Your task to perform on an android device: open app "Gmail" (install if not already installed) Image 0: 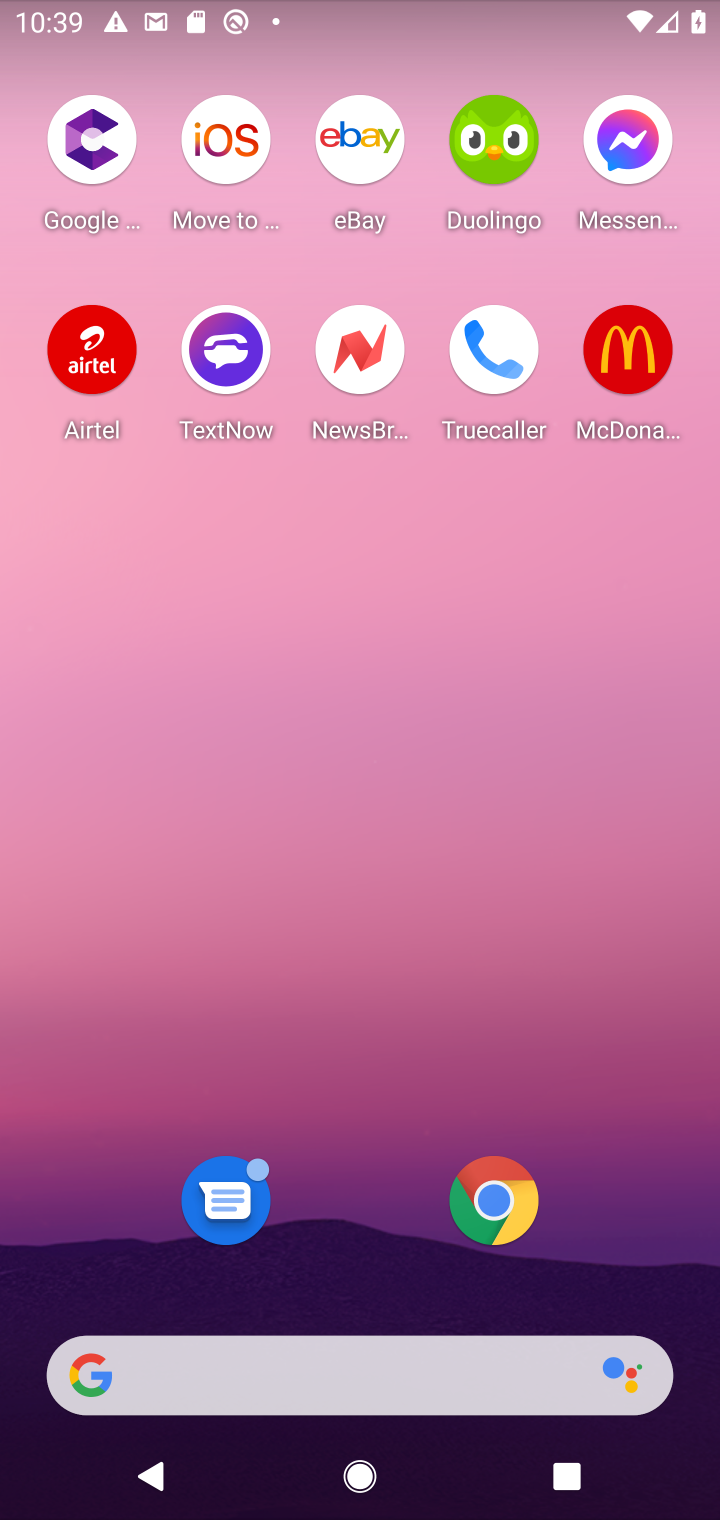
Step 0: press home button
Your task to perform on an android device: open app "Gmail" (install if not already installed) Image 1: 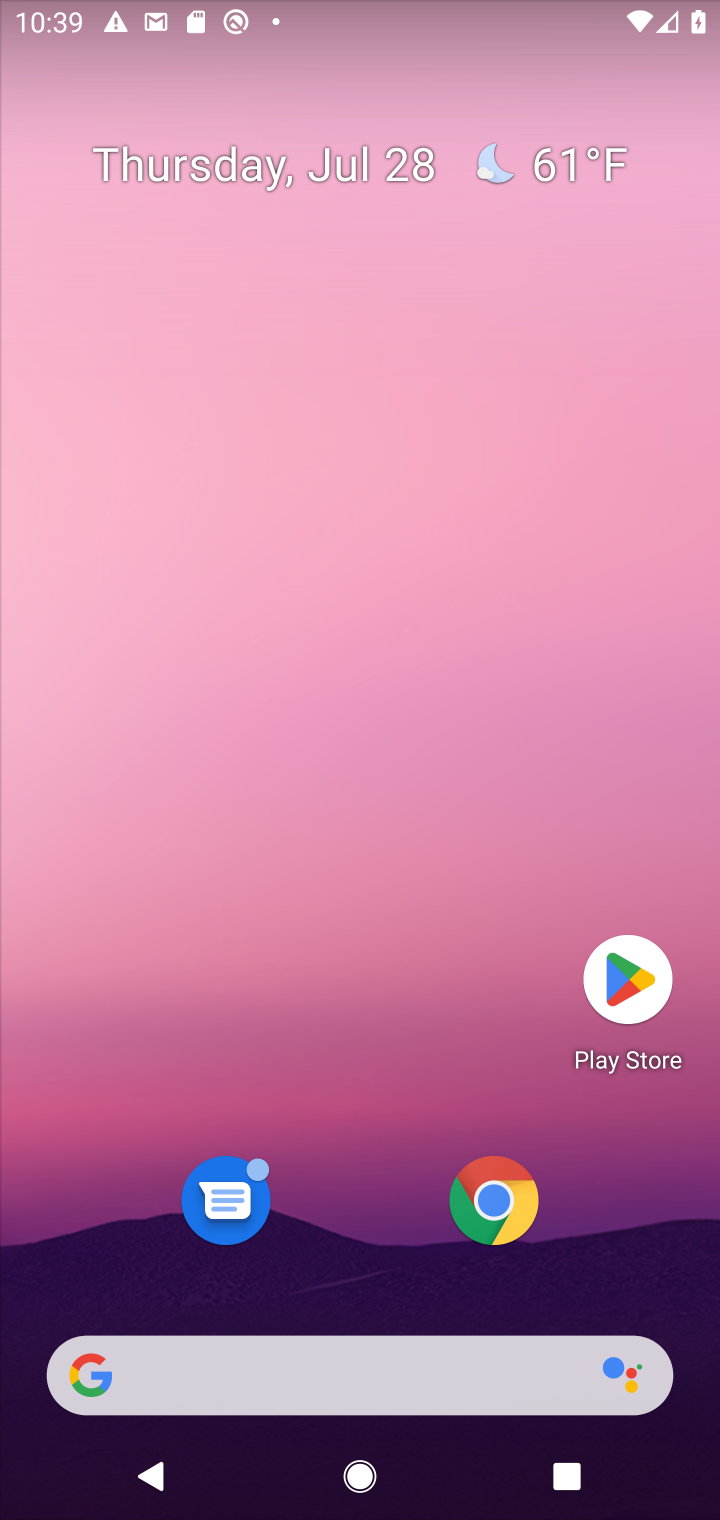
Step 1: drag from (353, 1306) to (485, 351)
Your task to perform on an android device: open app "Gmail" (install if not already installed) Image 2: 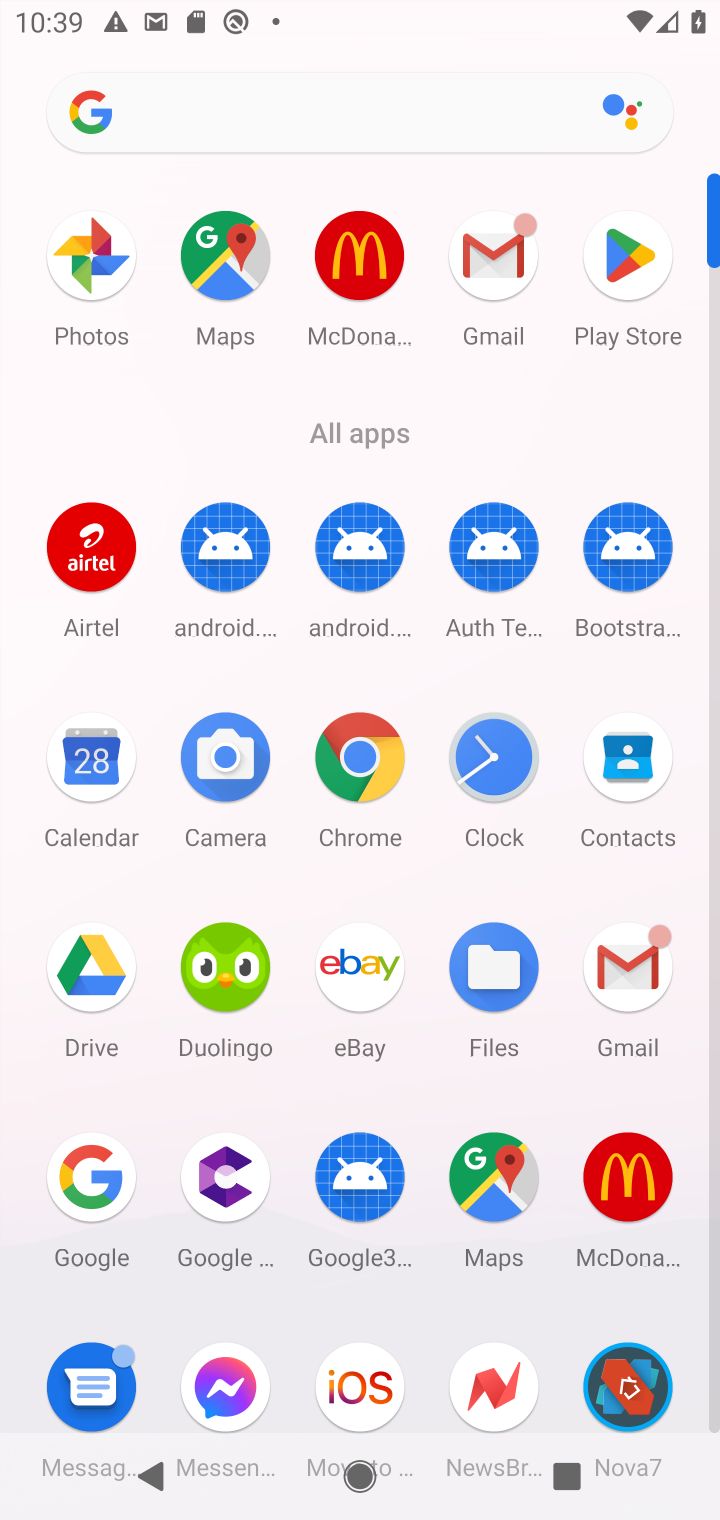
Step 2: click (495, 265)
Your task to perform on an android device: open app "Gmail" (install if not already installed) Image 3: 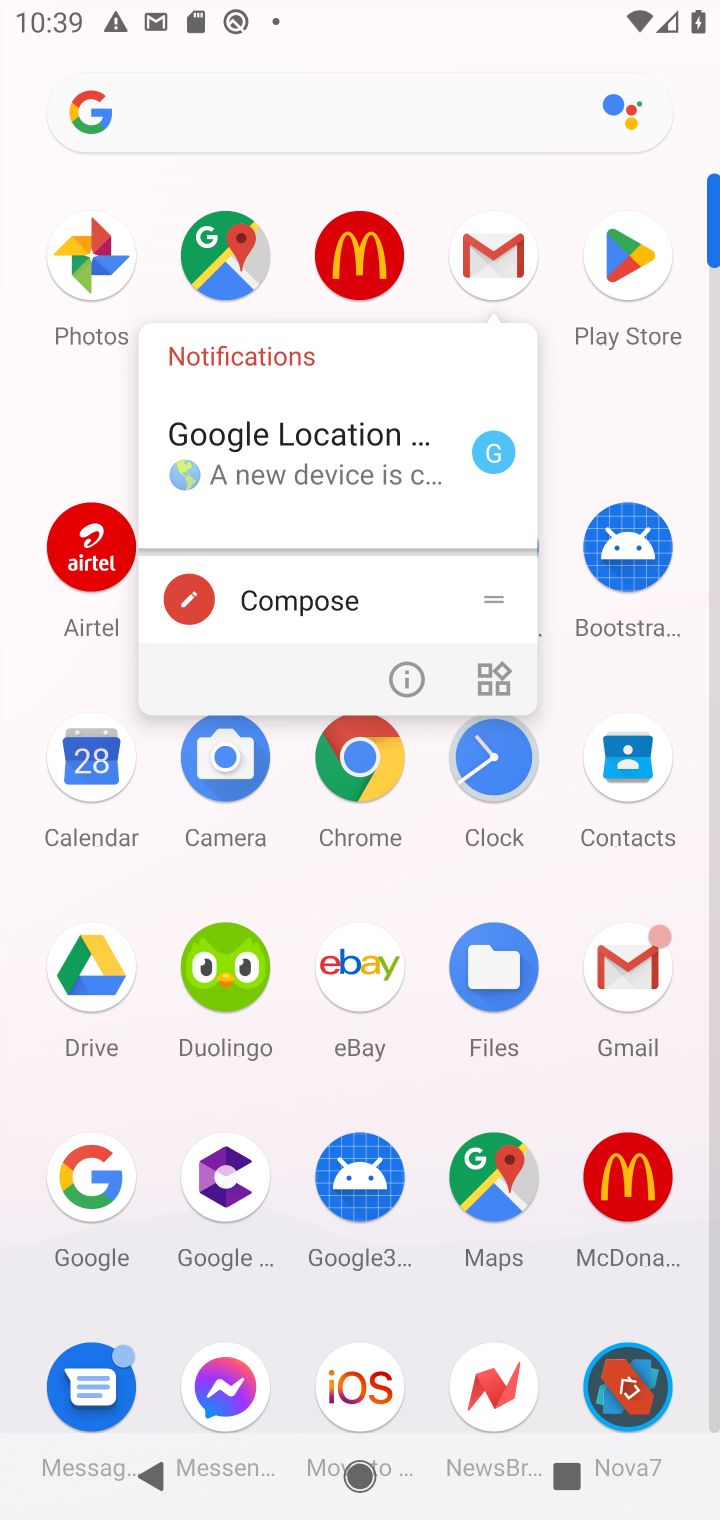
Step 3: click (495, 265)
Your task to perform on an android device: open app "Gmail" (install if not already installed) Image 4: 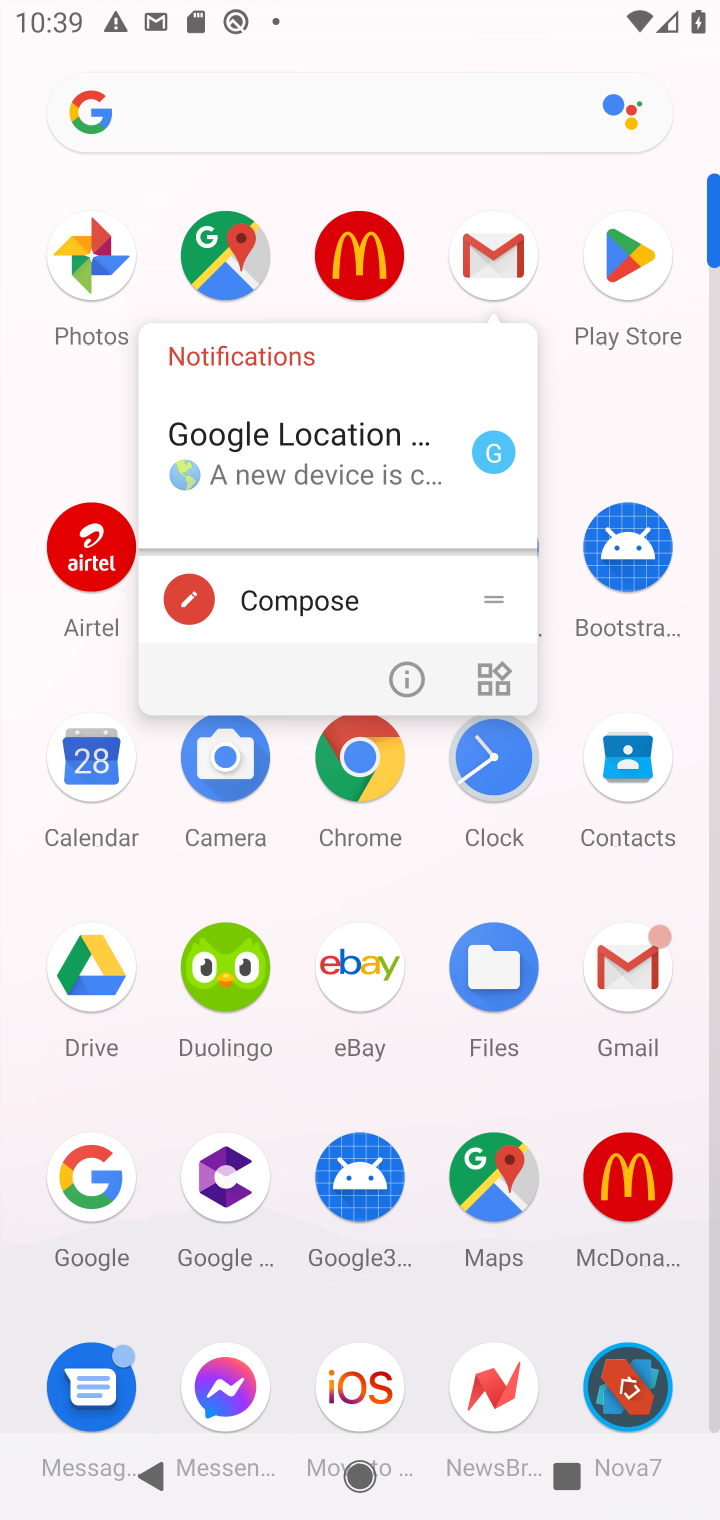
Step 4: click (495, 263)
Your task to perform on an android device: open app "Gmail" (install if not already installed) Image 5: 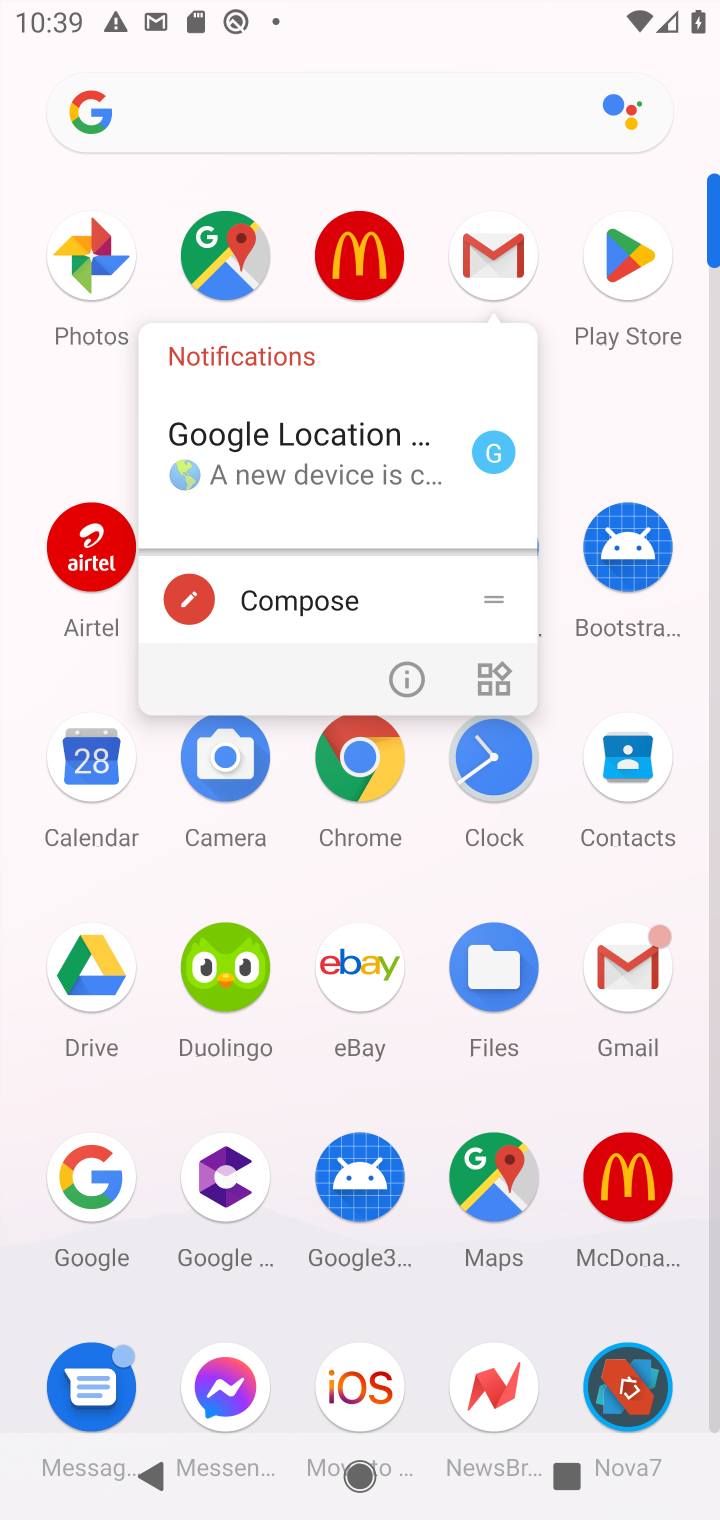
Step 5: click (492, 263)
Your task to perform on an android device: open app "Gmail" (install if not already installed) Image 6: 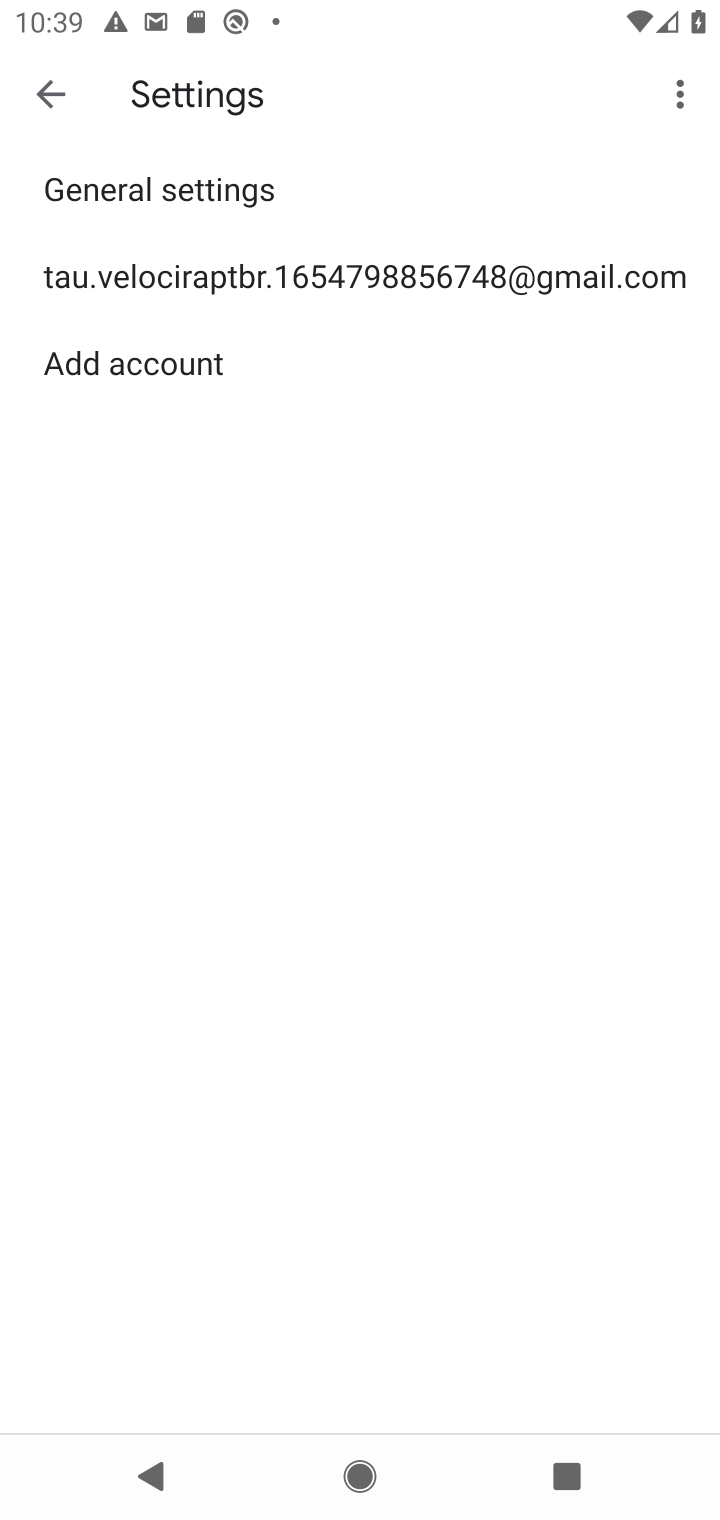
Step 6: click (45, 97)
Your task to perform on an android device: open app "Gmail" (install if not already installed) Image 7: 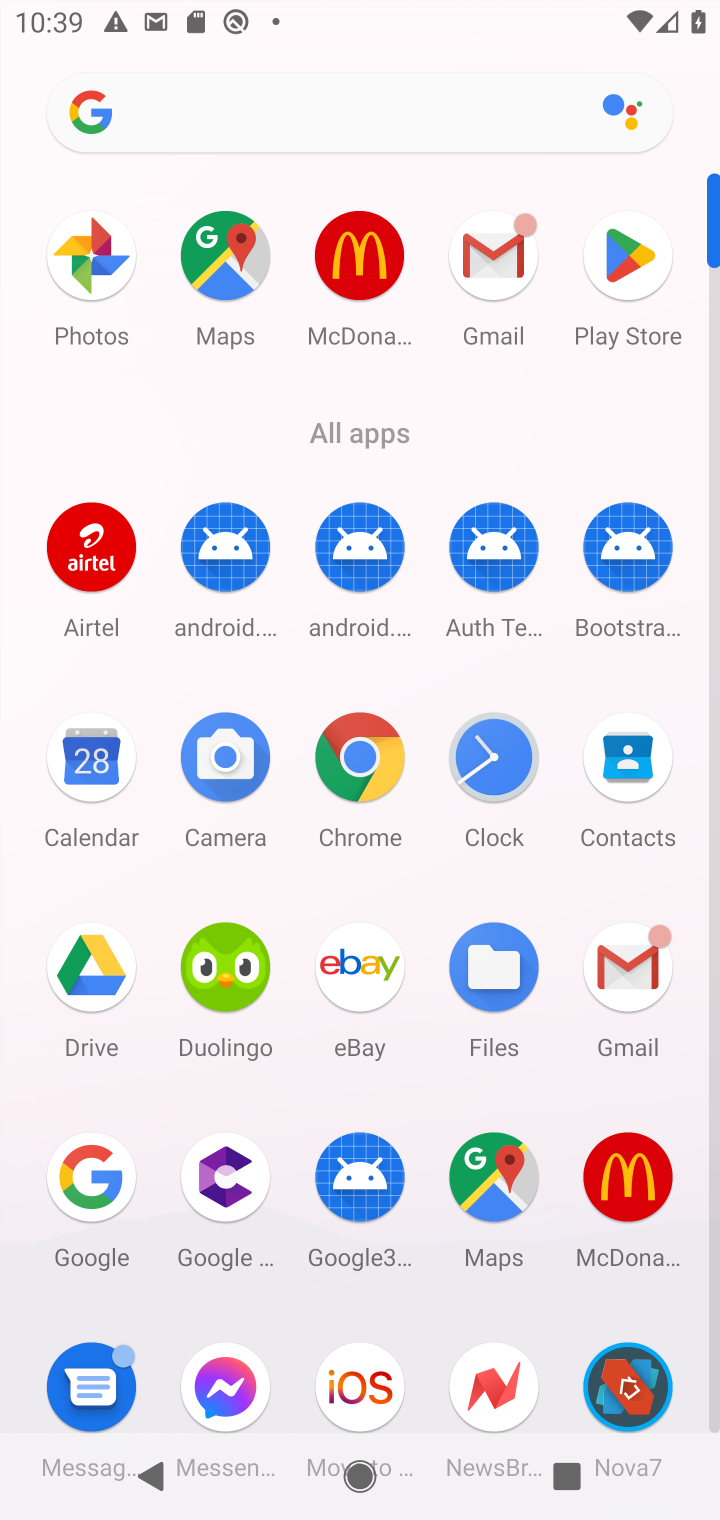
Step 7: click (498, 250)
Your task to perform on an android device: open app "Gmail" (install if not already installed) Image 8: 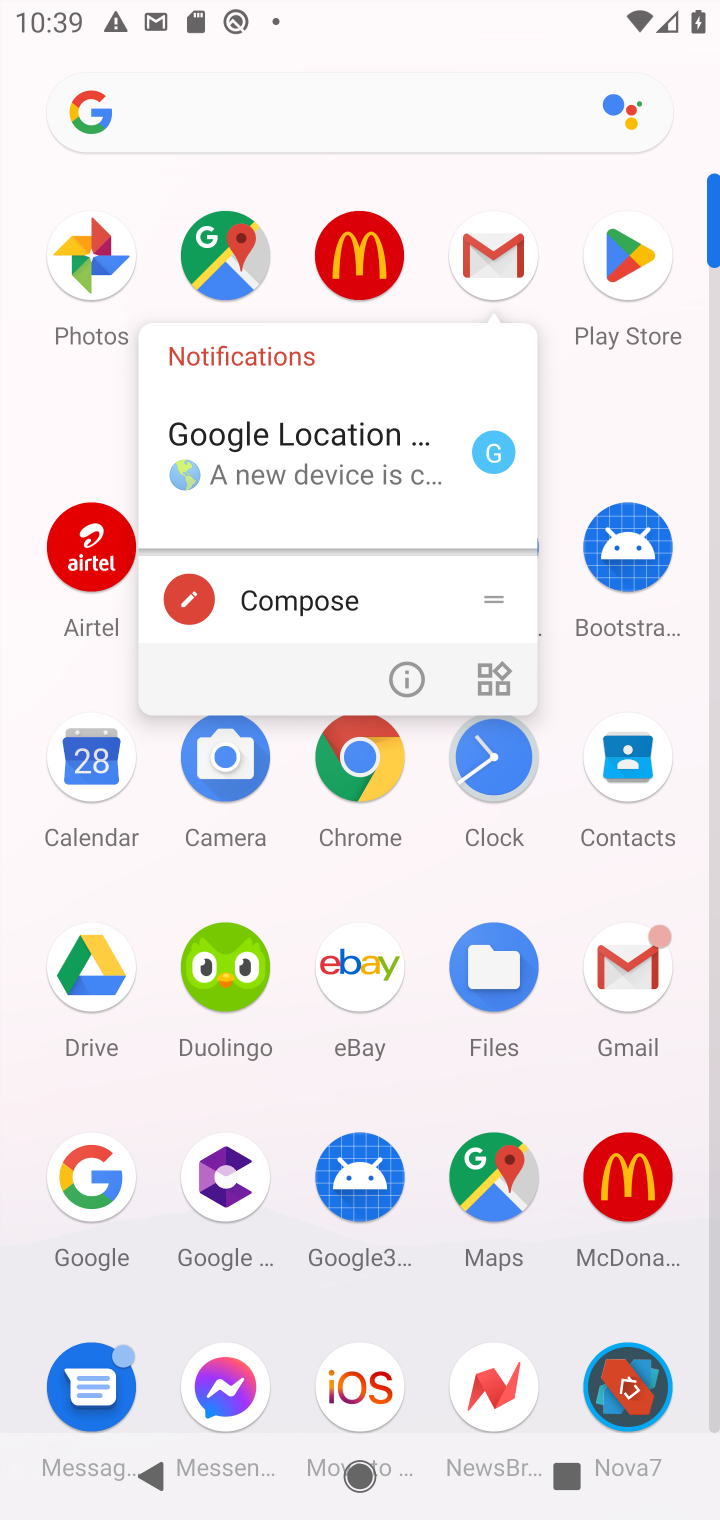
Step 8: click (498, 263)
Your task to perform on an android device: open app "Gmail" (install if not already installed) Image 9: 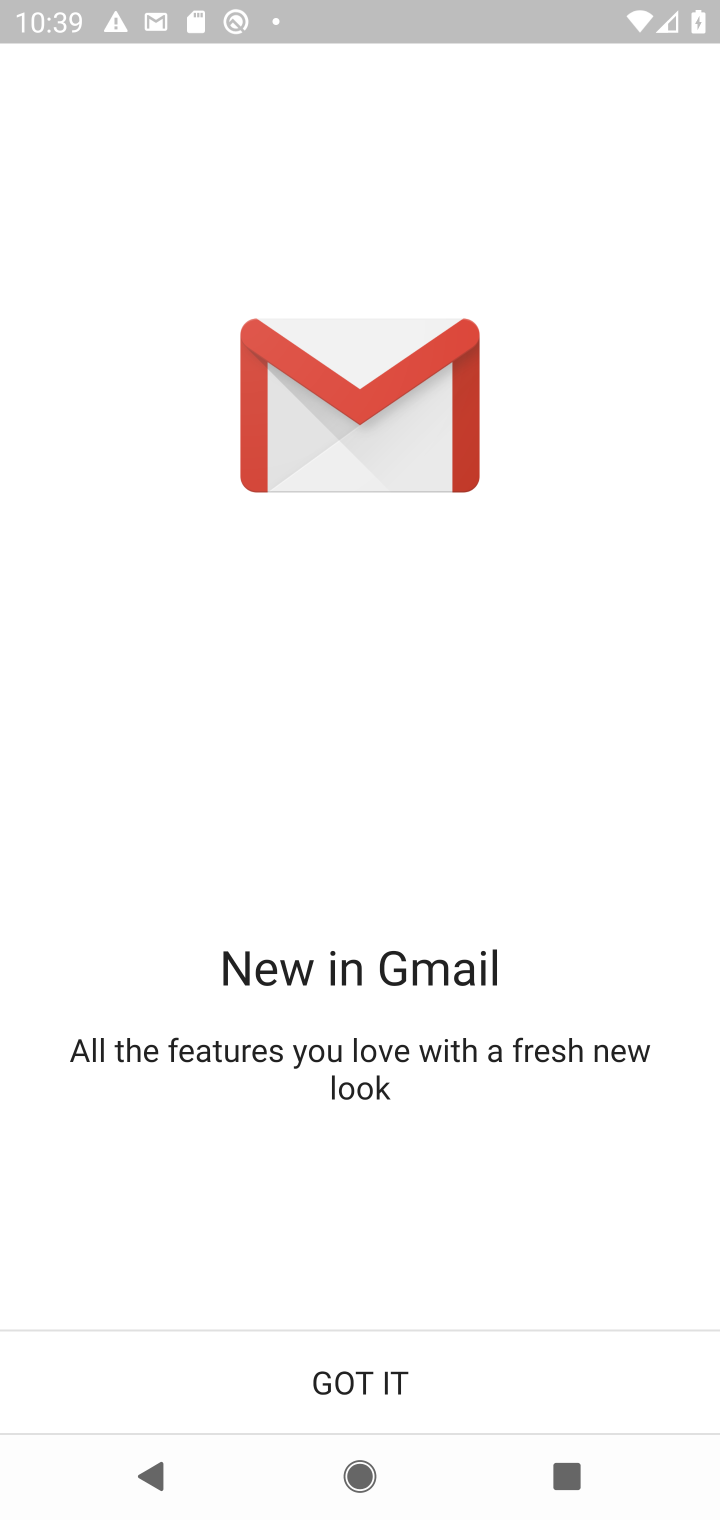
Step 9: click (350, 1378)
Your task to perform on an android device: open app "Gmail" (install if not already installed) Image 10: 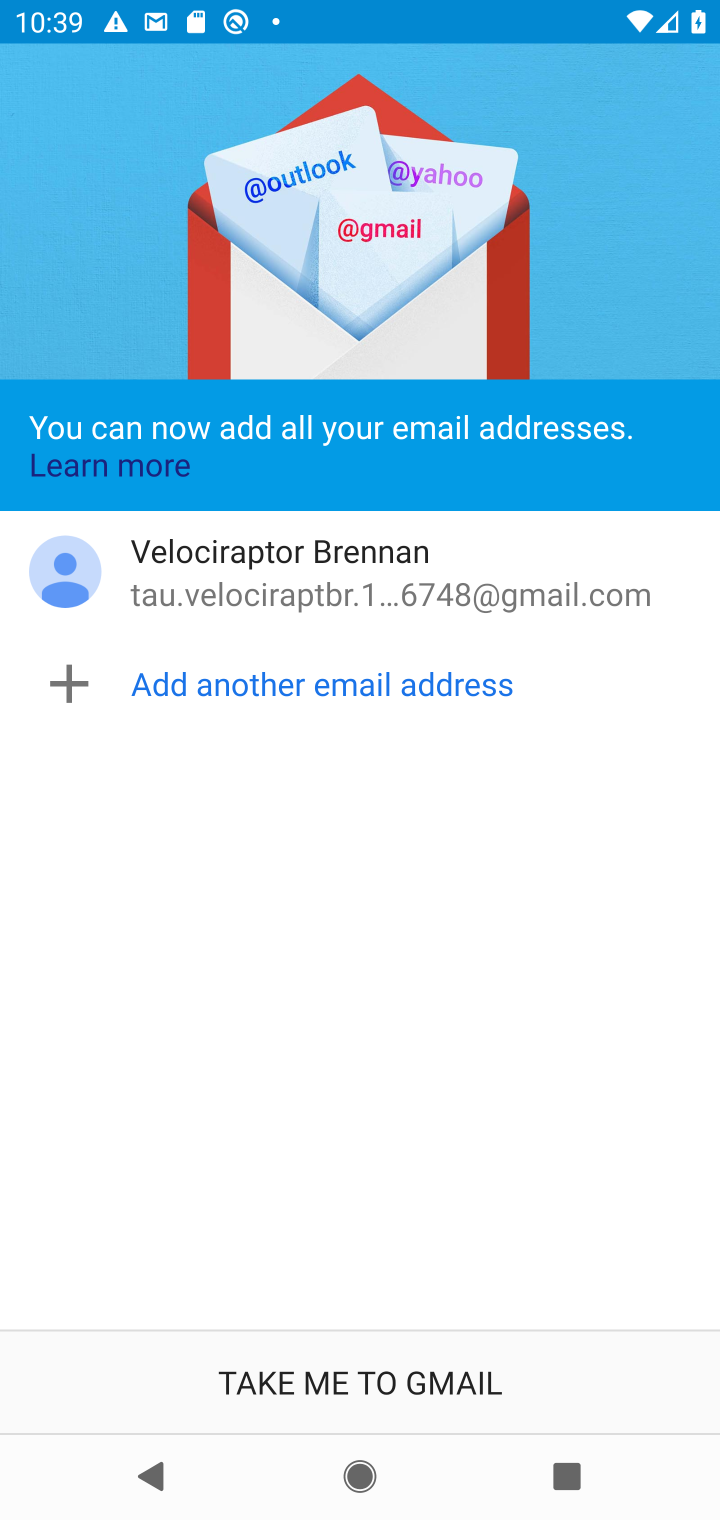
Step 10: click (350, 1380)
Your task to perform on an android device: open app "Gmail" (install if not already installed) Image 11: 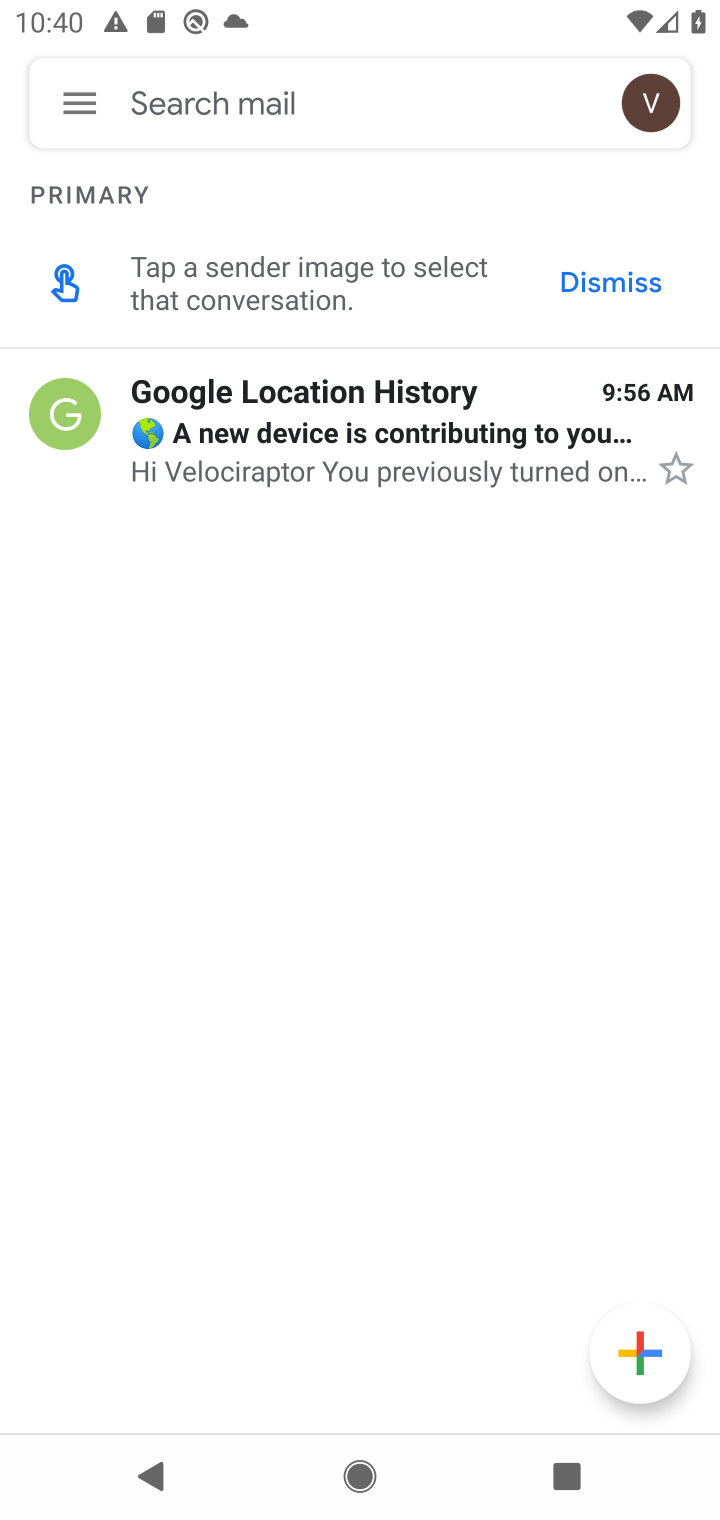
Step 11: task complete